Your task to perform on an android device: Open location settings Image 0: 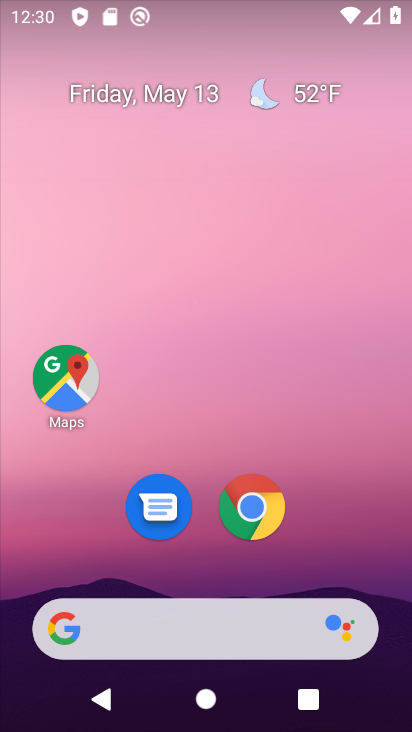
Step 0: drag from (216, 590) to (222, 159)
Your task to perform on an android device: Open location settings Image 1: 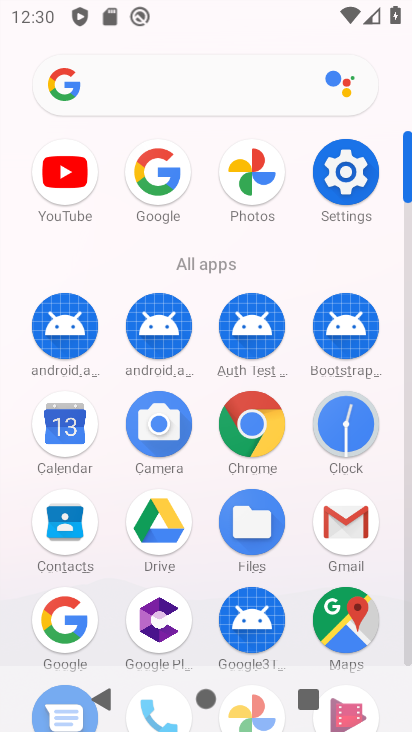
Step 1: click (334, 179)
Your task to perform on an android device: Open location settings Image 2: 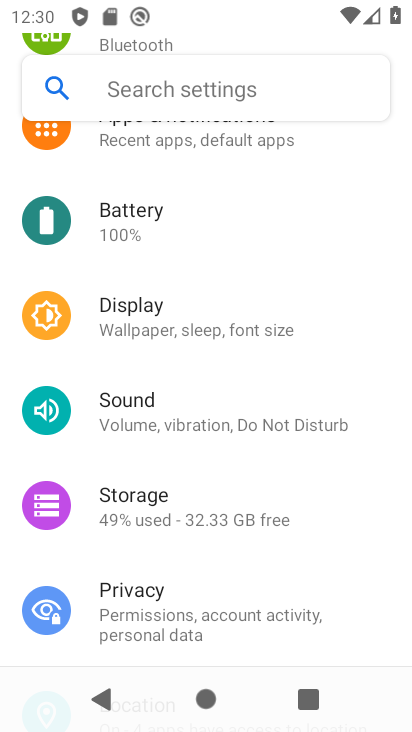
Step 2: drag from (172, 617) to (204, 214)
Your task to perform on an android device: Open location settings Image 3: 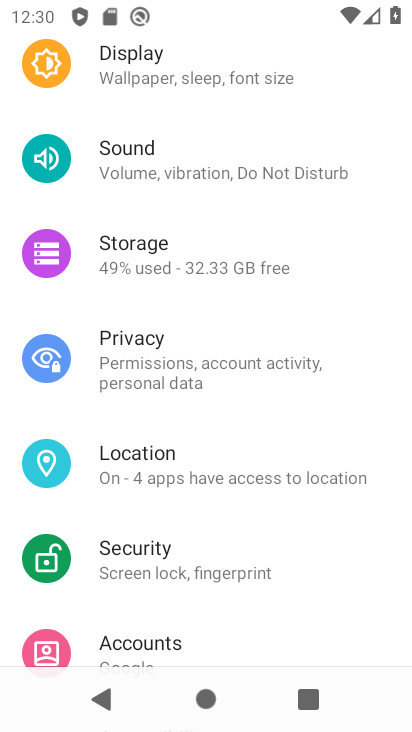
Step 3: click (167, 472)
Your task to perform on an android device: Open location settings Image 4: 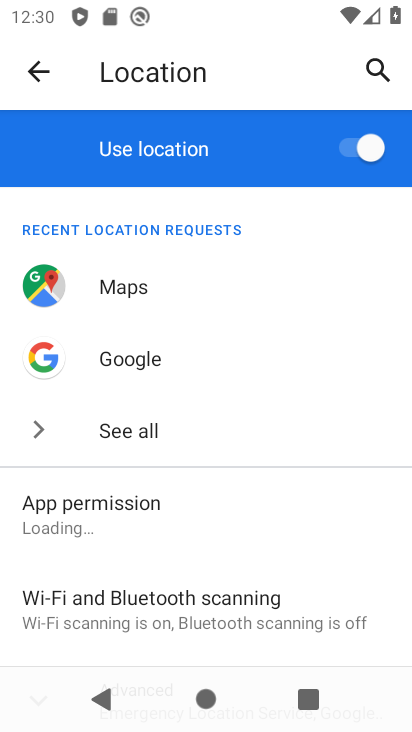
Step 4: drag from (184, 617) to (184, 221)
Your task to perform on an android device: Open location settings Image 5: 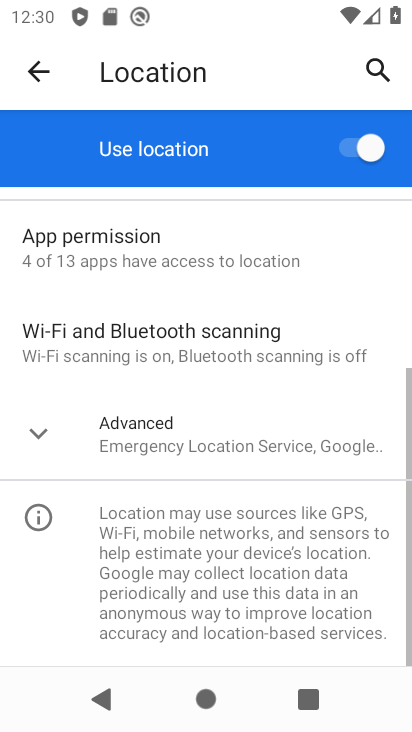
Step 5: click (122, 435)
Your task to perform on an android device: Open location settings Image 6: 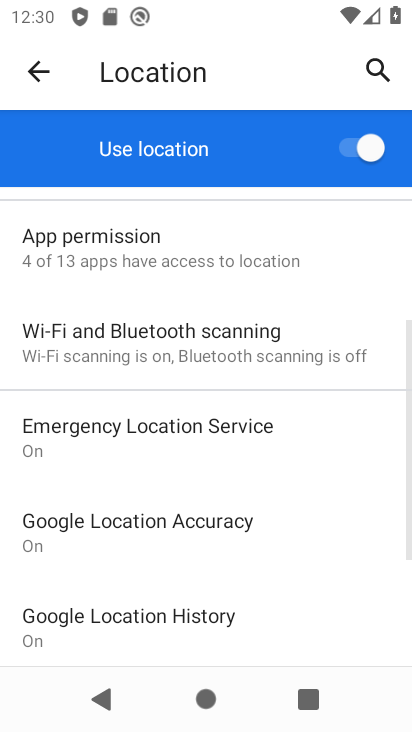
Step 6: task complete